Your task to perform on an android device: open app "LinkedIn" (install if not already installed) Image 0: 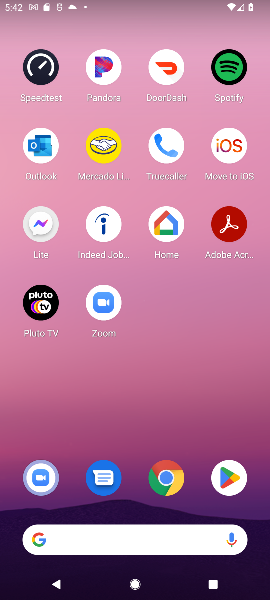
Step 0: press home button
Your task to perform on an android device: open app "LinkedIn" (install if not already installed) Image 1: 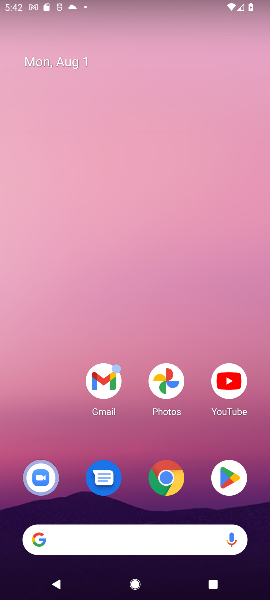
Step 1: click (231, 477)
Your task to perform on an android device: open app "LinkedIn" (install if not already installed) Image 2: 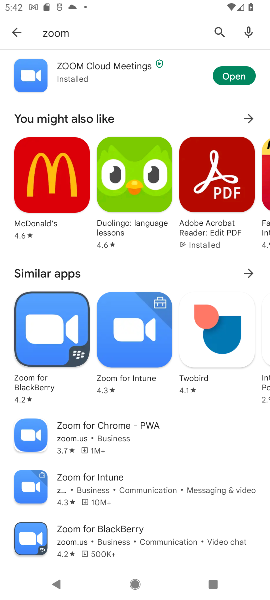
Step 2: click (233, 471)
Your task to perform on an android device: open app "LinkedIn" (install if not already installed) Image 3: 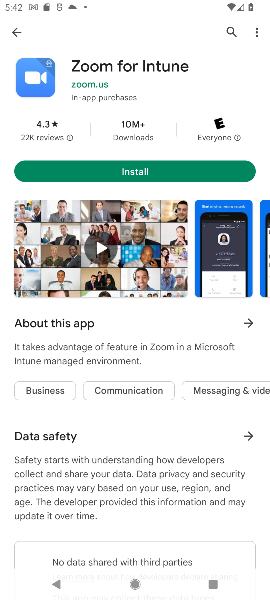
Step 3: click (226, 29)
Your task to perform on an android device: open app "LinkedIn" (install if not already installed) Image 4: 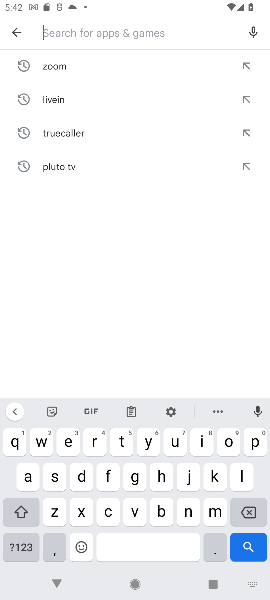
Step 4: click (242, 479)
Your task to perform on an android device: open app "LinkedIn" (install if not already installed) Image 5: 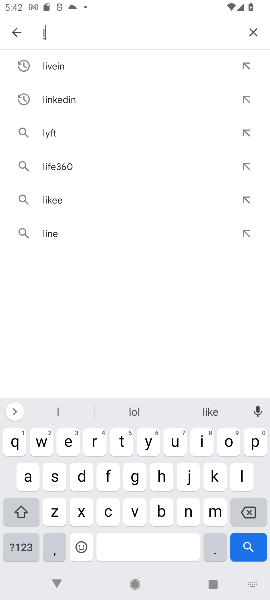
Step 5: click (74, 99)
Your task to perform on an android device: open app "LinkedIn" (install if not already installed) Image 6: 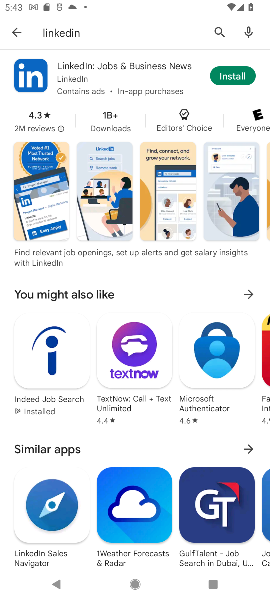
Step 6: click (229, 74)
Your task to perform on an android device: open app "LinkedIn" (install if not already installed) Image 7: 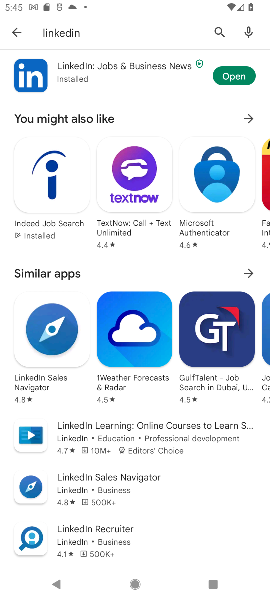
Step 7: click (227, 66)
Your task to perform on an android device: open app "LinkedIn" (install if not already installed) Image 8: 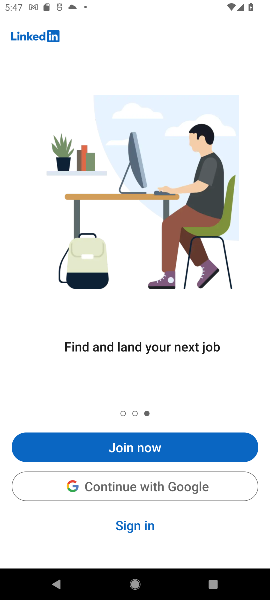
Step 8: task complete